Your task to perform on an android device: open app "WhatsApp Messenger" (install if not already installed) Image 0: 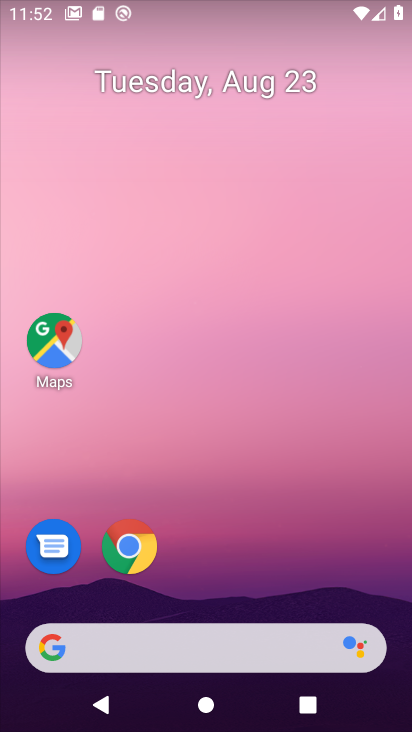
Step 0: drag from (187, 585) to (229, 207)
Your task to perform on an android device: open app "WhatsApp Messenger" (install if not already installed) Image 1: 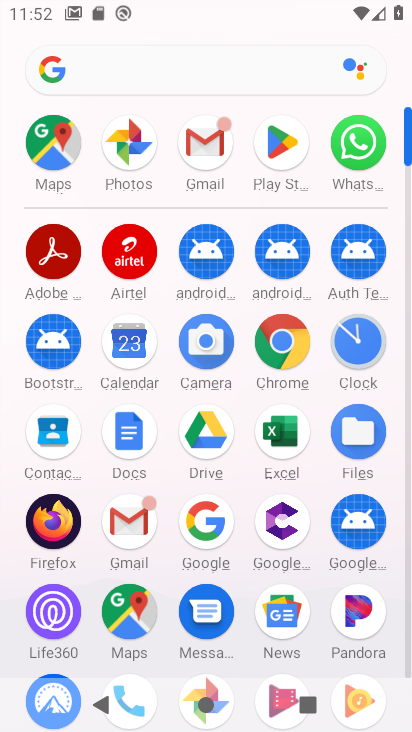
Step 1: click (275, 139)
Your task to perform on an android device: open app "WhatsApp Messenger" (install if not already installed) Image 2: 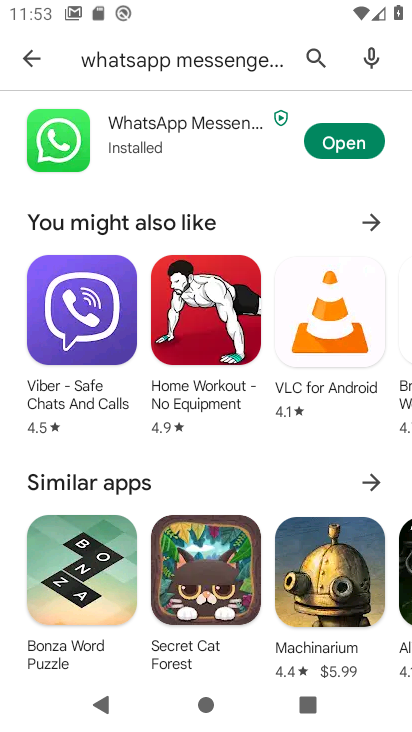
Step 2: click (46, 67)
Your task to perform on an android device: open app "WhatsApp Messenger" (install if not already installed) Image 3: 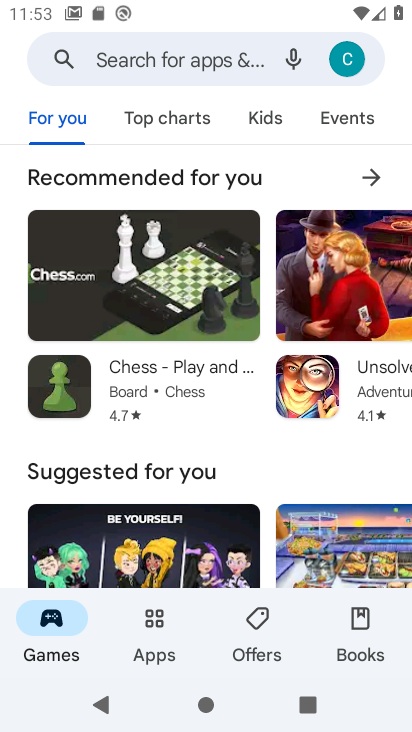
Step 3: click (166, 59)
Your task to perform on an android device: open app "WhatsApp Messenger" (install if not already installed) Image 4: 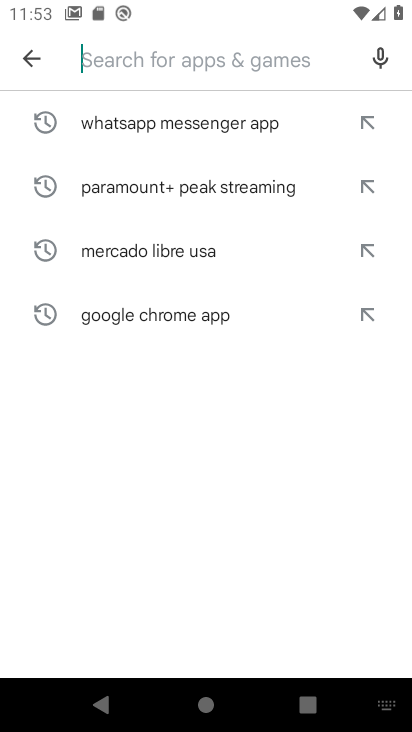
Step 4: type "WhatsApp Messenger "
Your task to perform on an android device: open app "WhatsApp Messenger" (install if not already installed) Image 5: 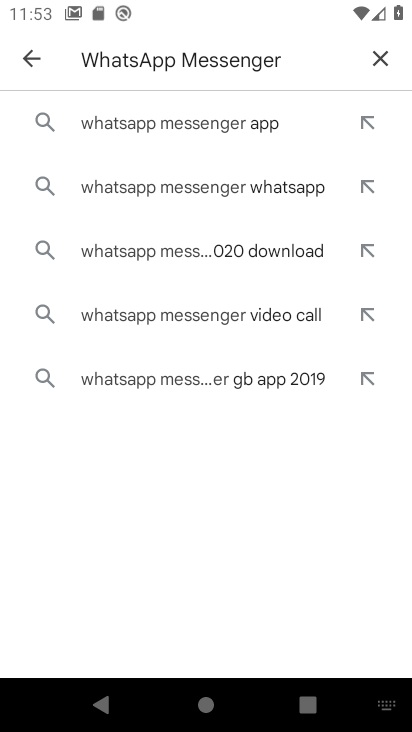
Step 5: click (151, 115)
Your task to perform on an android device: open app "WhatsApp Messenger" (install if not already installed) Image 6: 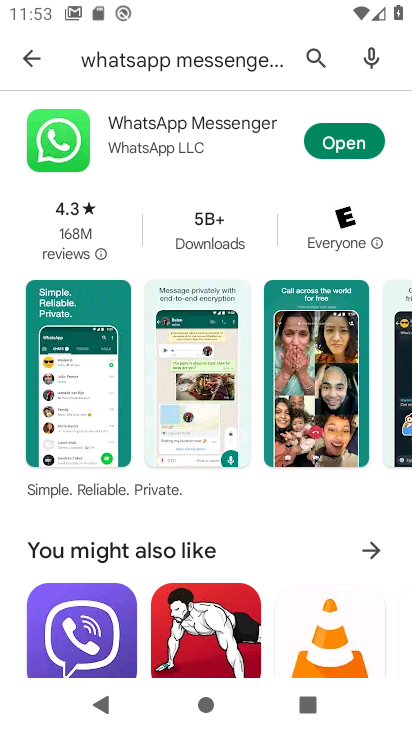
Step 6: task complete